Your task to perform on an android device: Play the last video I watched on Youtube Image 0: 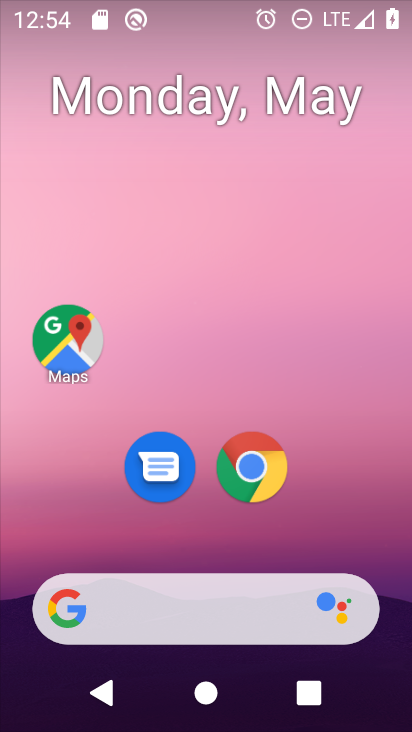
Step 0: drag from (352, 561) to (339, 0)
Your task to perform on an android device: Play the last video I watched on Youtube Image 1: 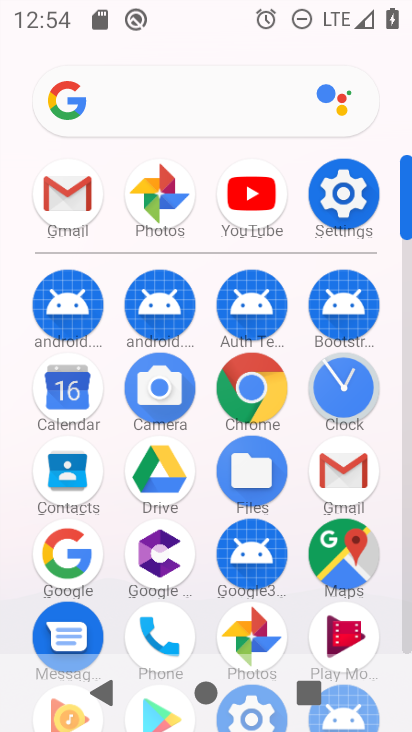
Step 1: click (246, 196)
Your task to perform on an android device: Play the last video I watched on Youtube Image 2: 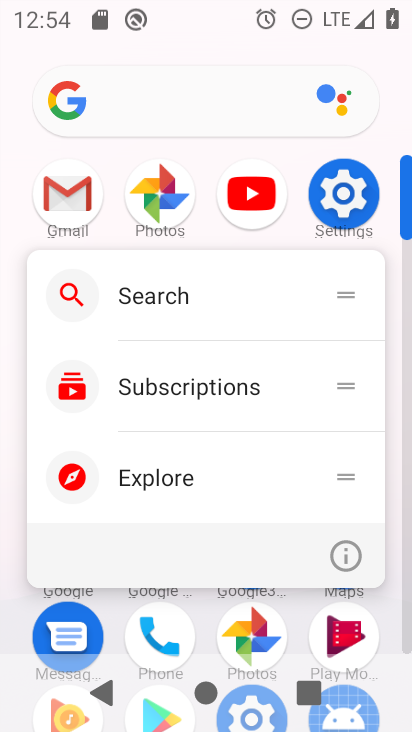
Step 2: click (245, 195)
Your task to perform on an android device: Play the last video I watched on Youtube Image 3: 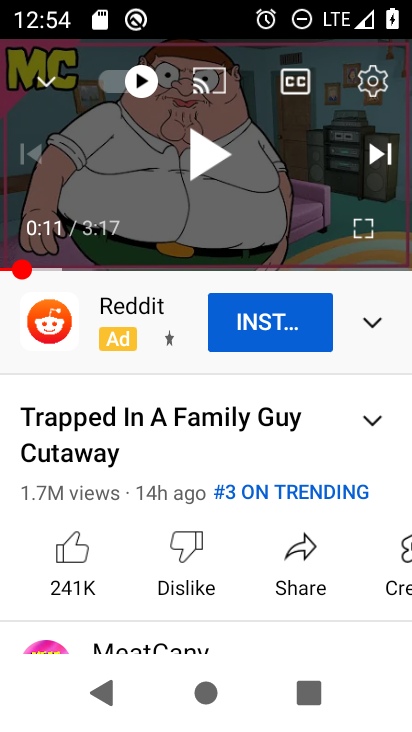
Step 3: click (208, 154)
Your task to perform on an android device: Play the last video I watched on Youtube Image 4: 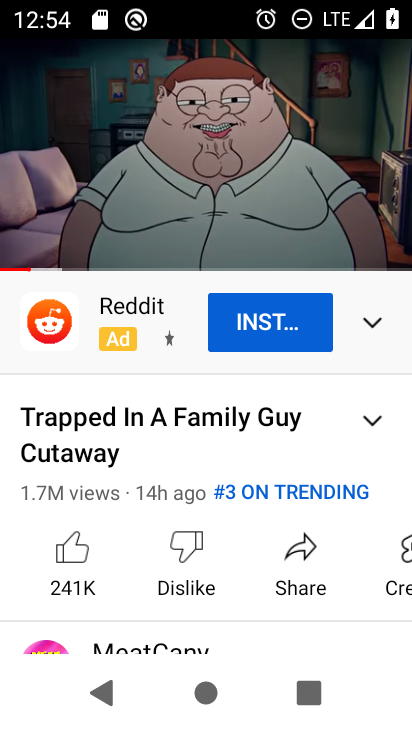
Step 4: click (208, 154)
Your task to perform on an android device: Play the last video I watched on Youtube Image 5: 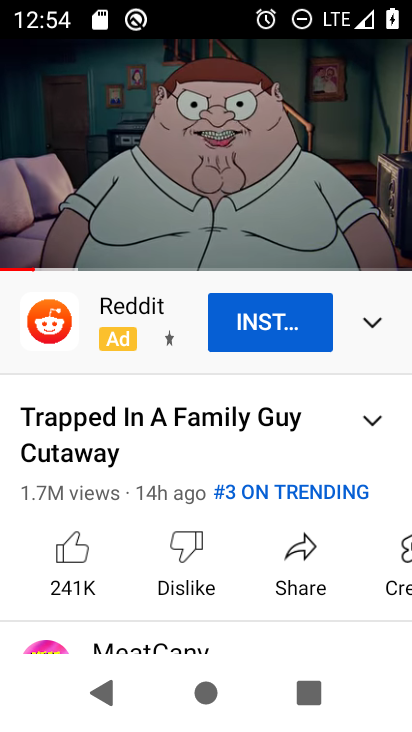
Step 5: click (208, 154)
Your task to perform on an android device: Play the last video I watched on Youtube Image 6: 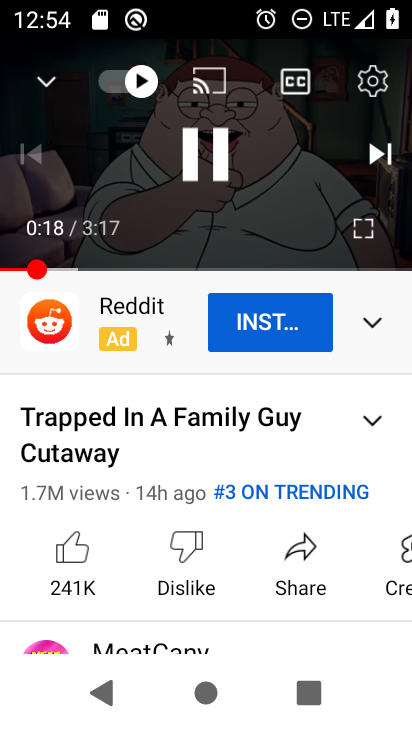
Step 6: click (208, 154)
Your task to perform on an android device: Play the last video I watched on Youtube Image 7: 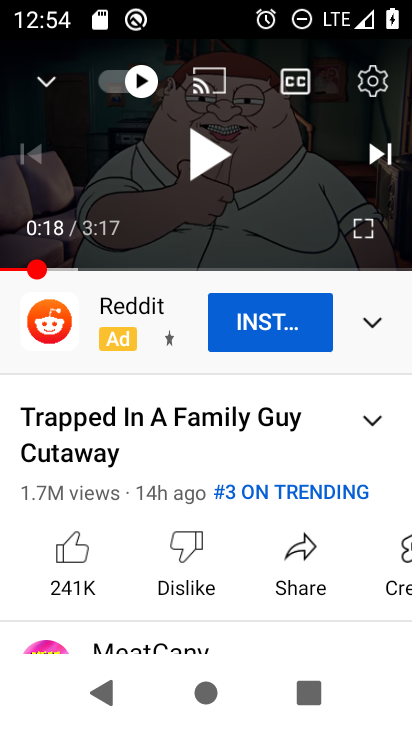
Step 7: task complete